Your task to perform on an android device: Go to accessibility settings Image 0: 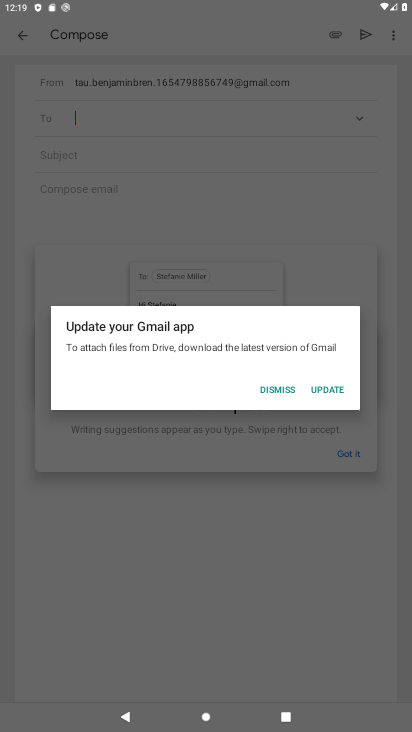
Step 0: press home button
Your task to perform on an android device: Go to accessibility settings Image 1: 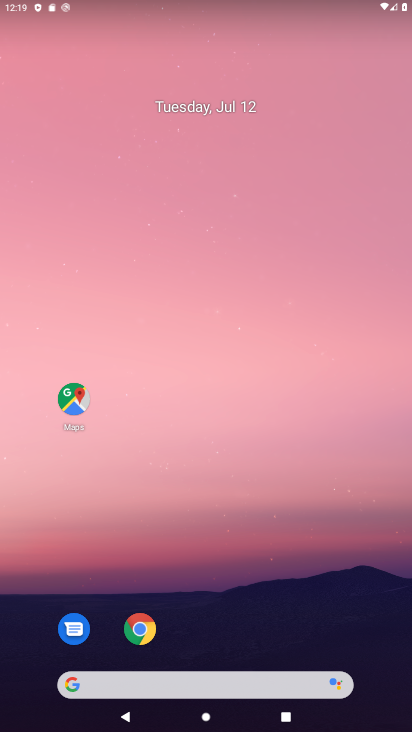
Step 1: drag from (151, 669) to (262, 0)
Your task to perform on an android device: Go to accessibility settings Image 2: 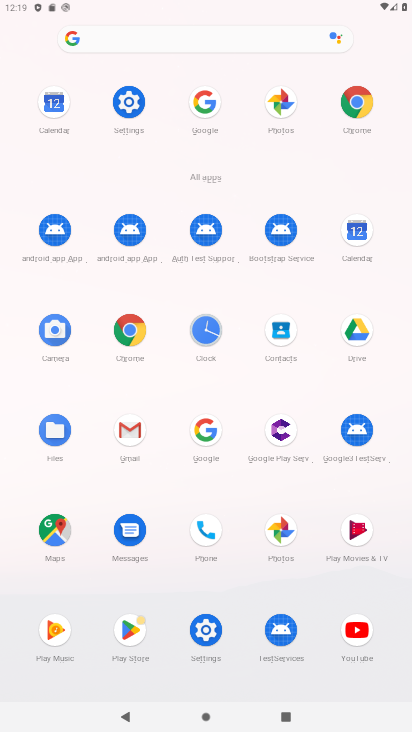
Step 2: click (120, 105)
Your task to perform on an android device: Go to accessibility settings Image 3: 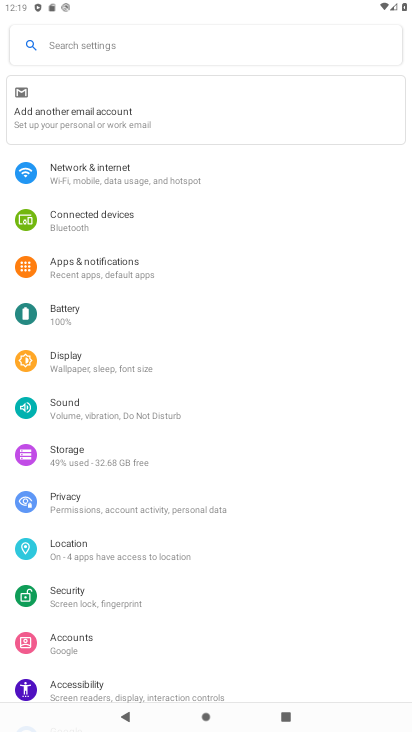
Step 3: click (131, 682)
Your task to perform on an android device: Go to accessibility settings Image 4: 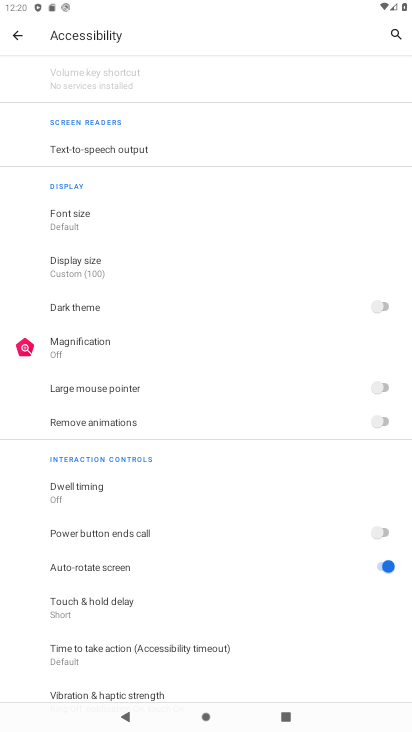
Step 4: task complete